Your task to perform on an android device: turn smart compose on in the gmail app Image 0: 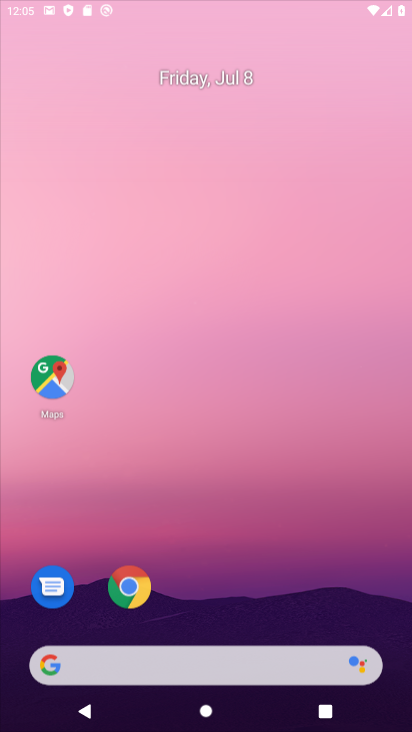
Step 0: press home button
Your task to perform on an android device: turn smart compose on in the gmail app Image 1: 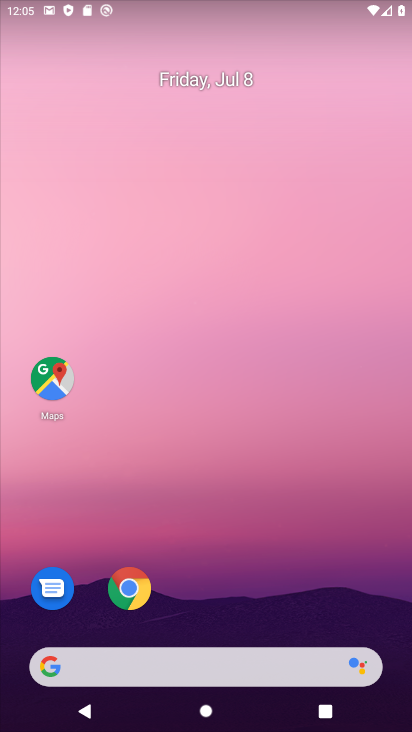
Step 1: drag from (313, 598) to (320, 310)
Your task to perform on an android device: turn smart compose on in the gmail app Image 2: 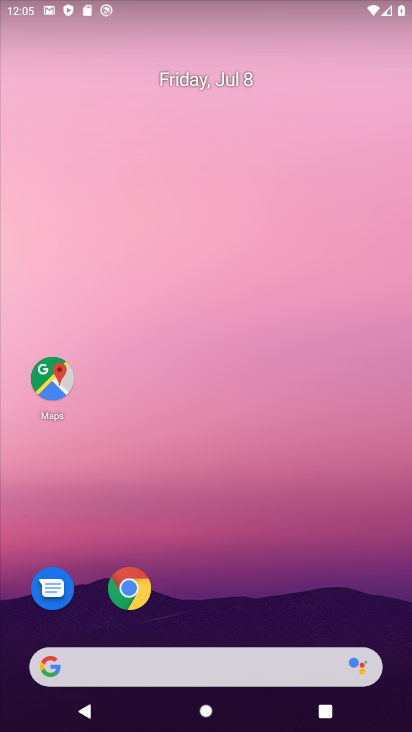
Step 2: drag from (295, 553) to (266, 2)
Your task to perform on an android device: turn smart compose on in the gmail app Image 3: 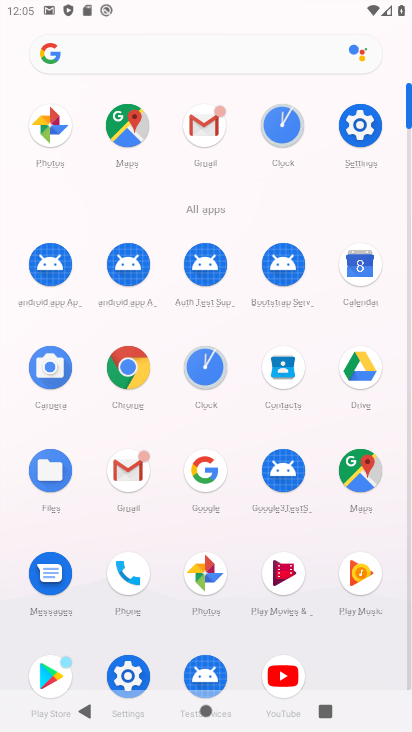
Step 3: click (207, 123)
Your task to perform on an android device: turn smart compose on in the gmail app Image 4: 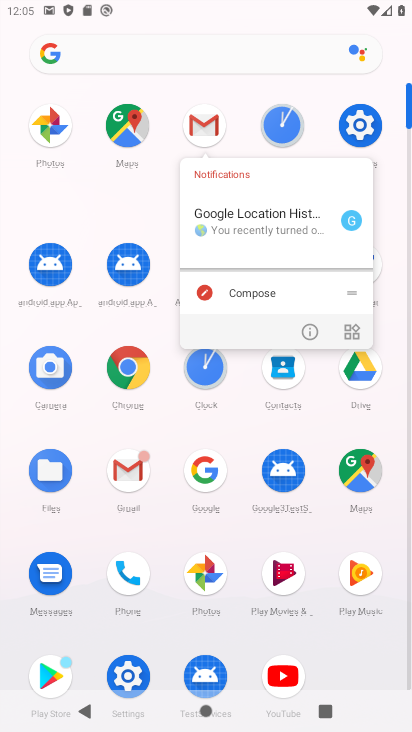
Step 4: click (215, 126)
Your task to perform on an android device: turn smart compose on in the gmail app Image 5: 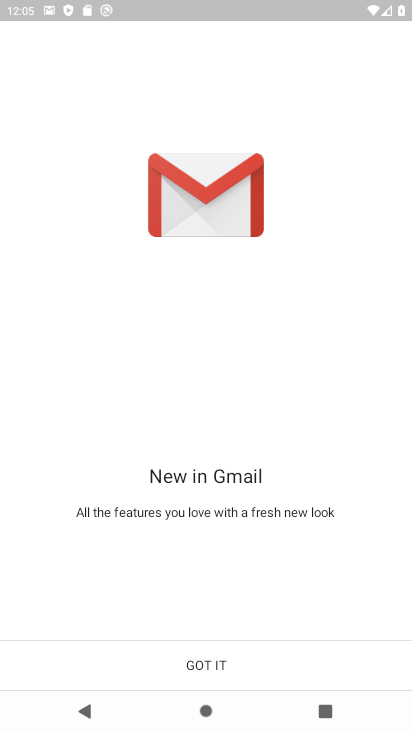
Step 5: click (214, 662)
Your task to perform on an android device: turn smart compose on in the gmail app Image 6: 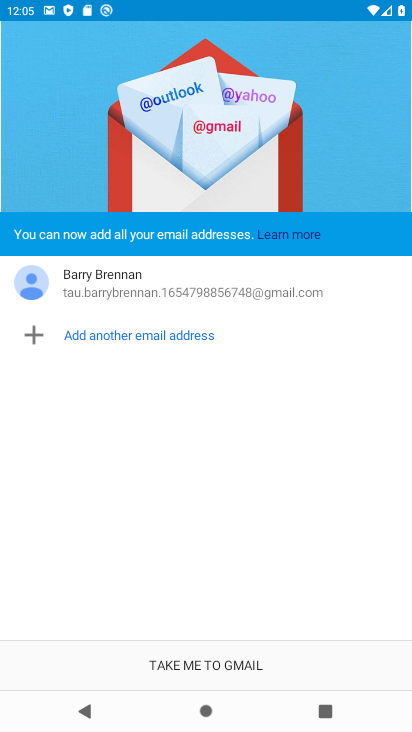
Step 6: click (214, 662)
Your task to perform on an android device: turn smart compose on in the gmail app Image 7: 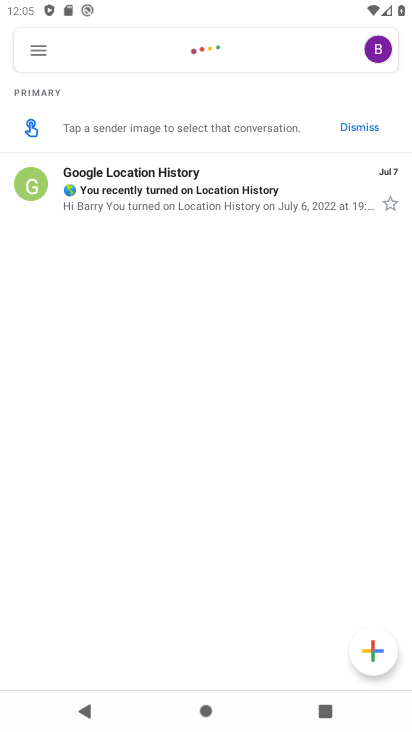
Step 7: click (36, 49)
Your task to perform on an android device: turn smart compose on in the gmail app Image 8: 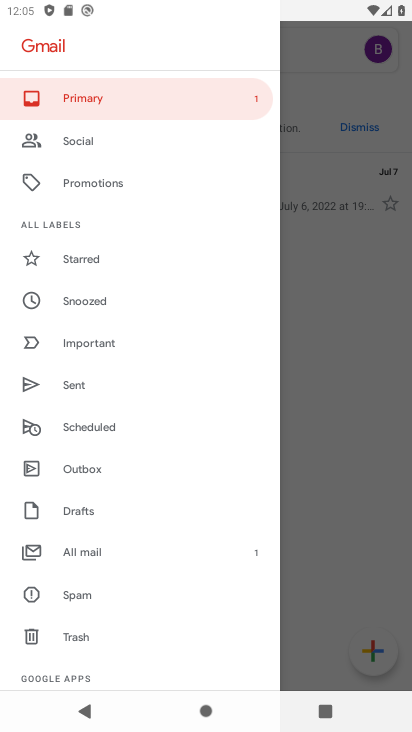
Step 8: drag from (102, 655) to (165, 225)
Your task to perform on an android device: turn smart compose on in the gmail app Image 9: 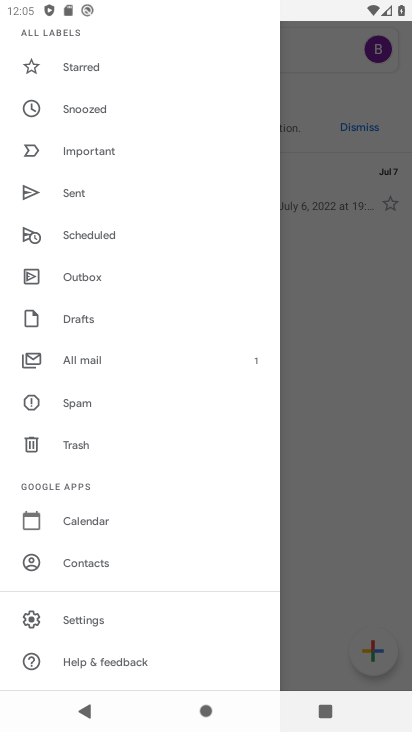
Step 9: click (66, 618)
Your task to perform on an android device: turn smart compose on in the gmail app Image 10: 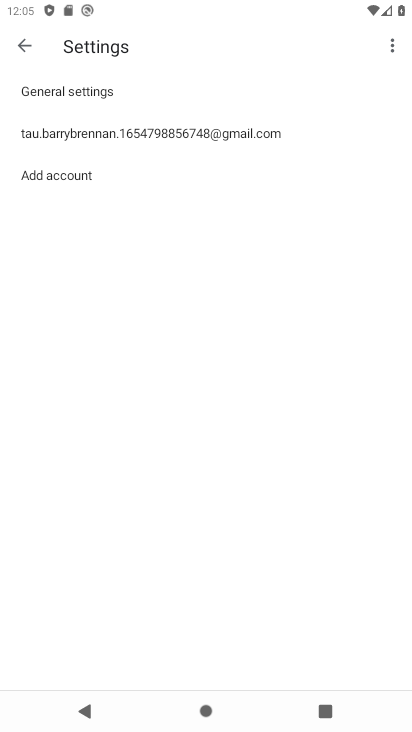
Step 10: click (45, 133)
Your task to perform on an android device: turn smart compose on in the gmail app Image 11: 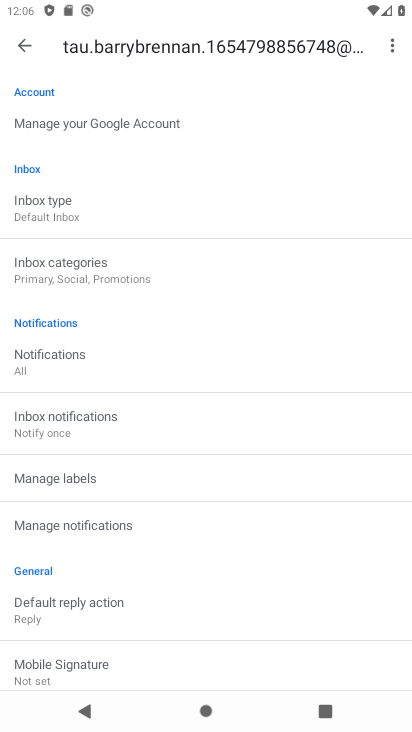
Step 11: task complete